Your task to perform on an android device: Add "logitech g910" to the cart on costco, then select checkout. Image 0: 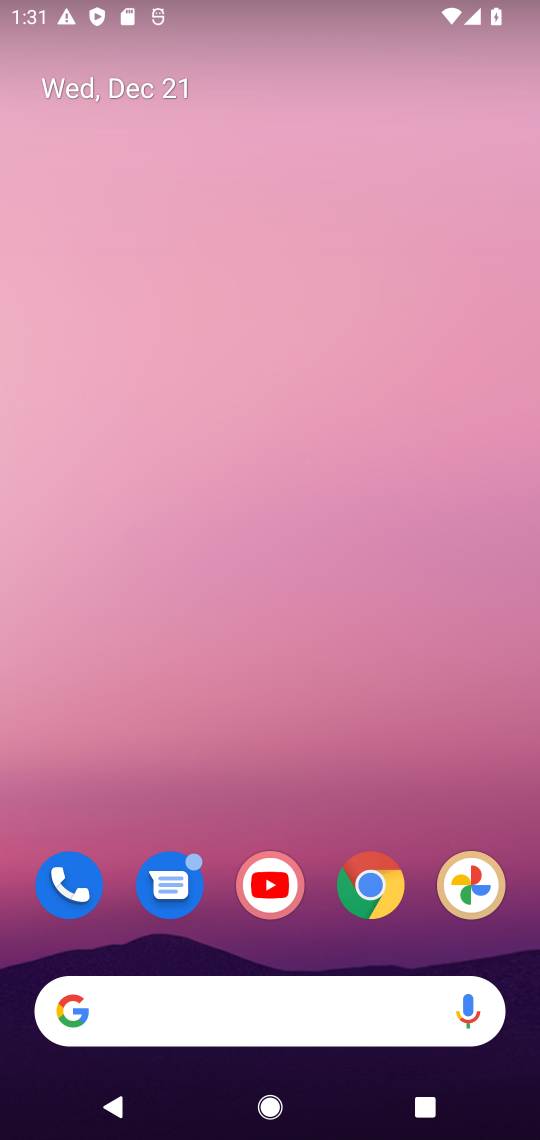
Step 0: drag from (250, 1016) to (198, 486)
Your task to perform on an android device: Add "logitech g910" to the cart on costco, then select checkout. Image 1: 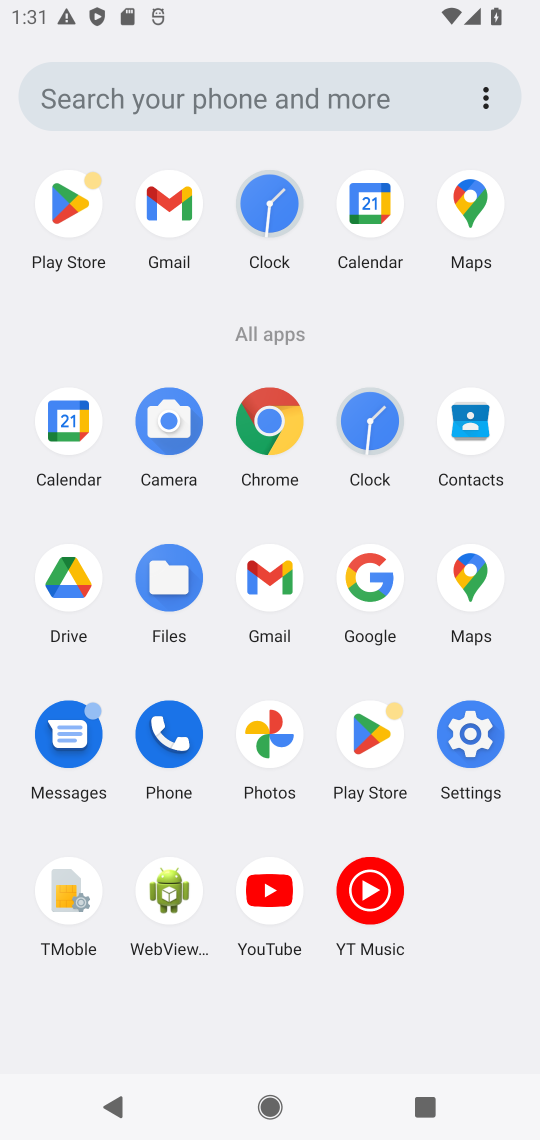
Step 1: click (373, 586)
Your task to perform on an android device: Add "logitech g910" to the cart on costco, then select checkout. Image 2: 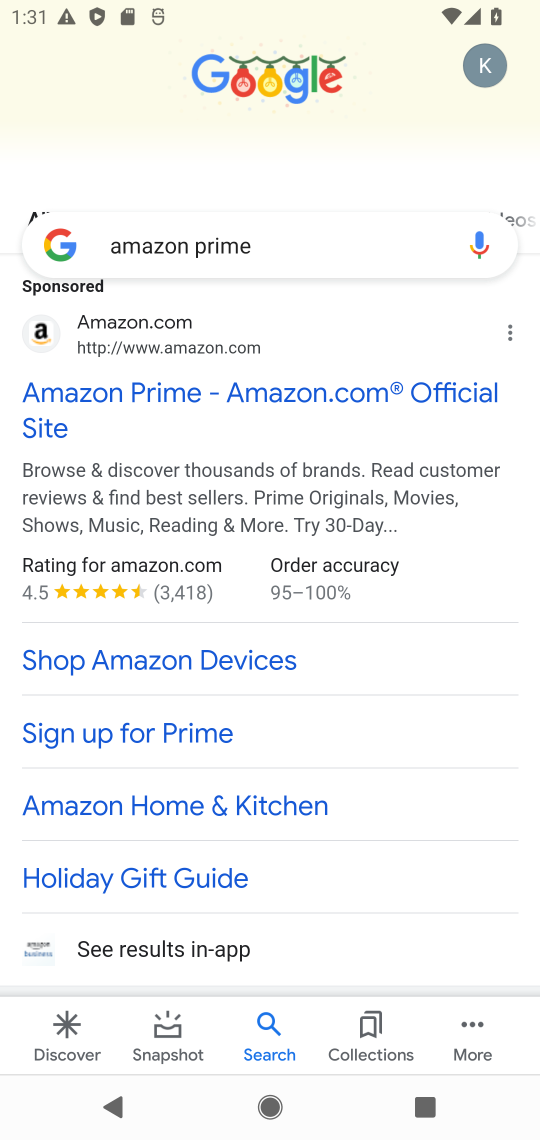
Step 2: click (238, 250)
Your task to perform on an android device: Add "logitech g910" to the cart on costco, then select checkout. Image 3: 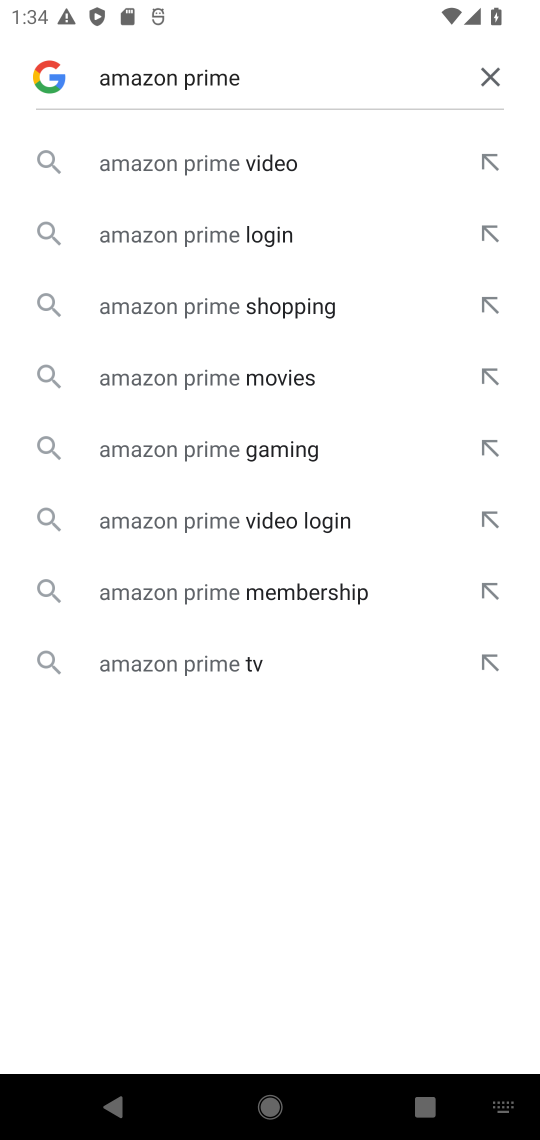
Step 3: click (493, 74)
Your task to perform on an android device: Add "logitech g910" to the cart on costco, then select checkout. Image 4: 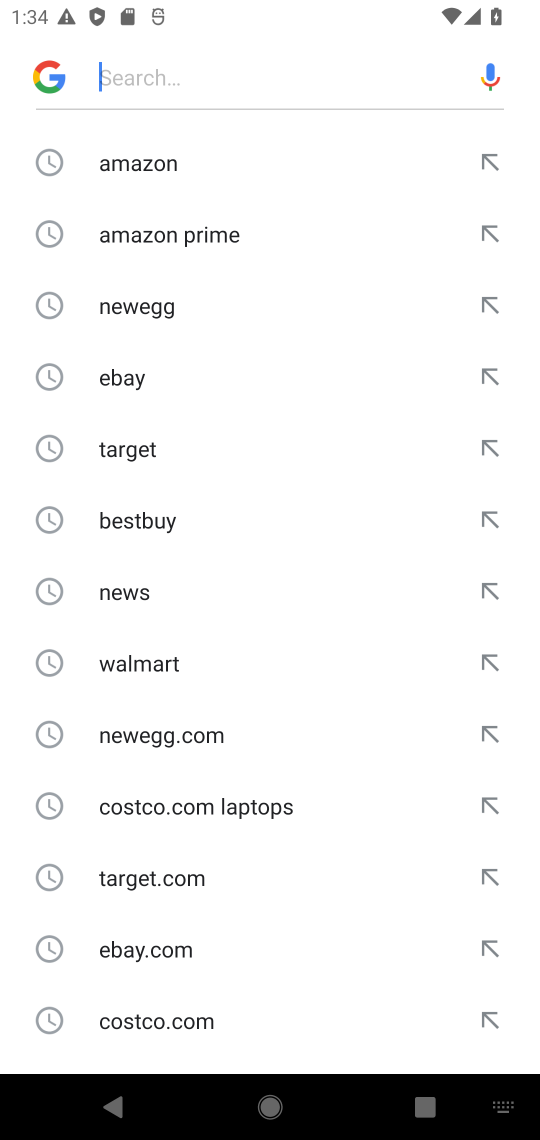
Step 4: click (175, 1021)
Your task to perform on an android device: Add "logitech g910" to the cart on costco, then select checkout. Image 5: 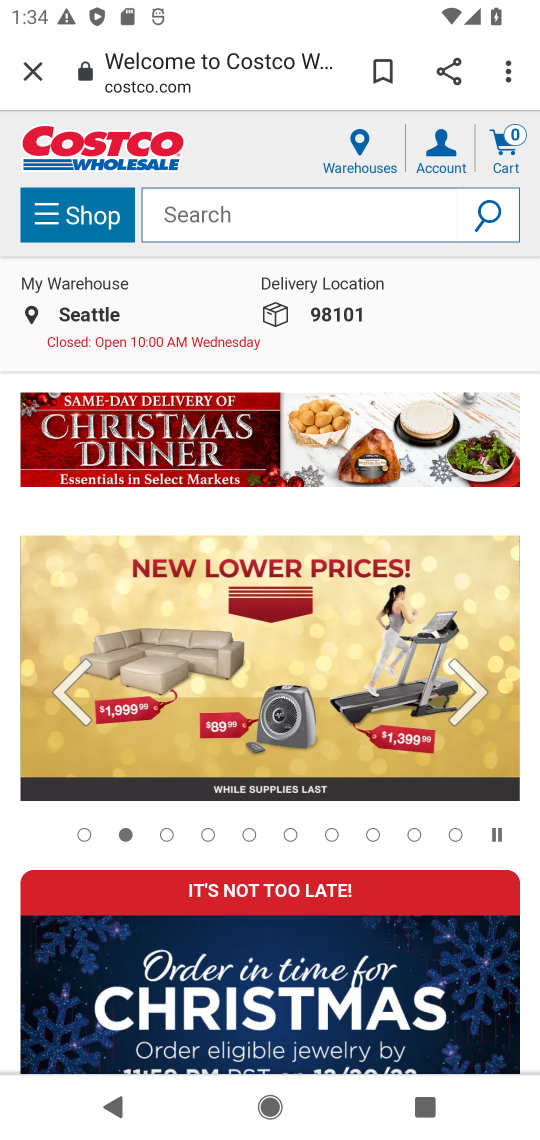
Step 5: click (206, 205)
Your task to perform on an android device: Add "logitech g910" to the cart on costco, then select checkout. Image 6: 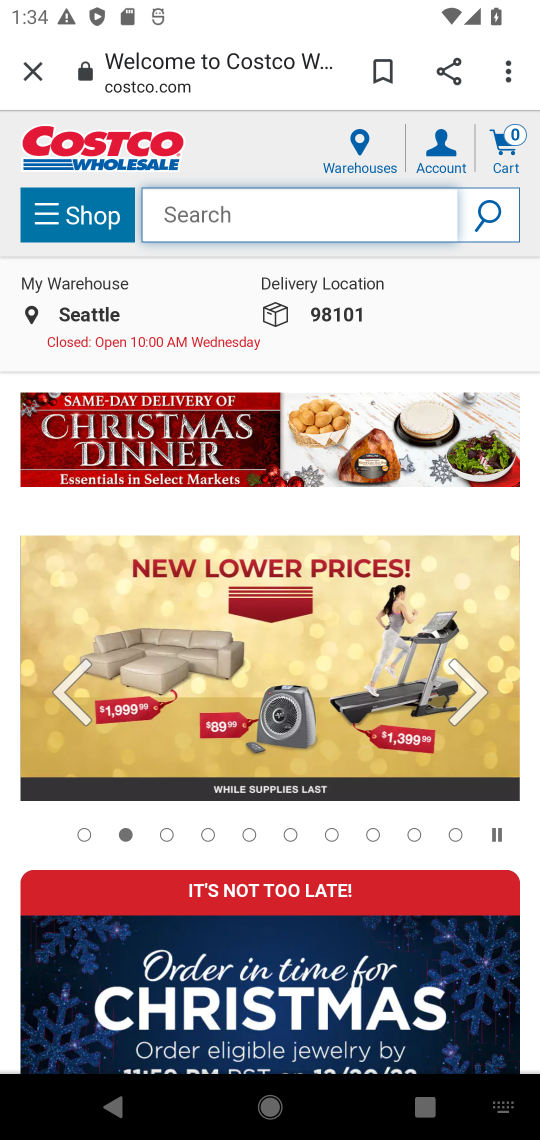
Step 6: type "logitech g910"
Your task to perform on an android device: Add "logitech g910" to the cart on costco, then select checkout. Image 7: 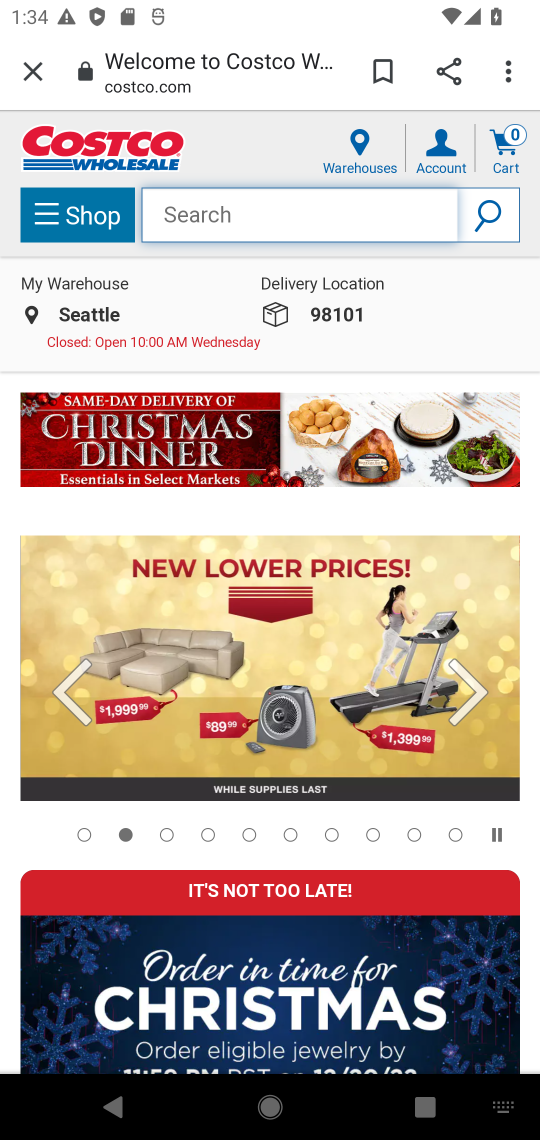
Step 7: click (481, 217)
Your task to perform on an android device: Add "logitech g910" to the cart on costco, then select checkout. Image 8: 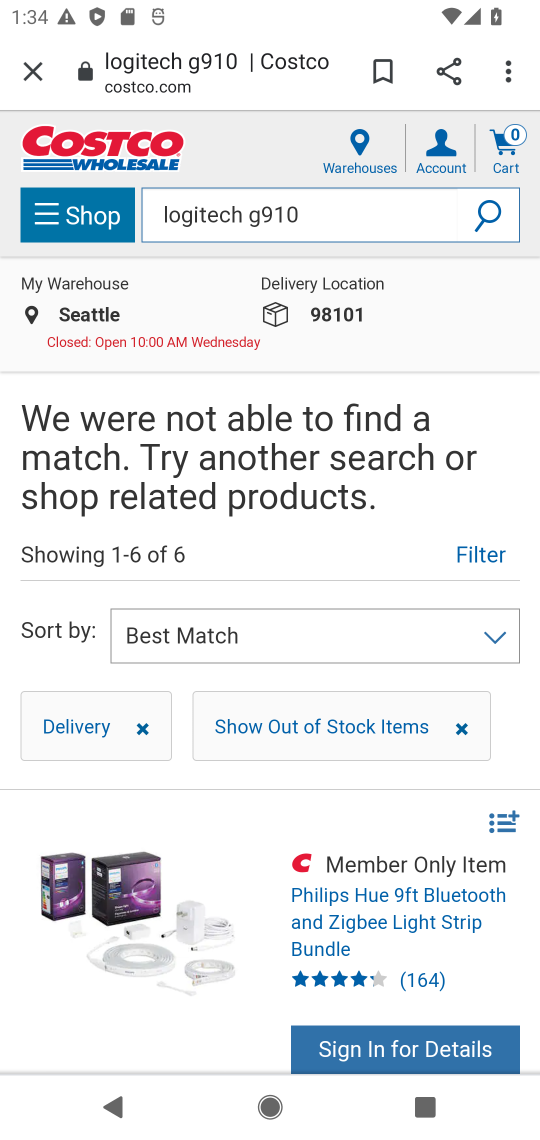
Step 8: task complete